Your task to perform on an android device: Go to internet settings Image 0: 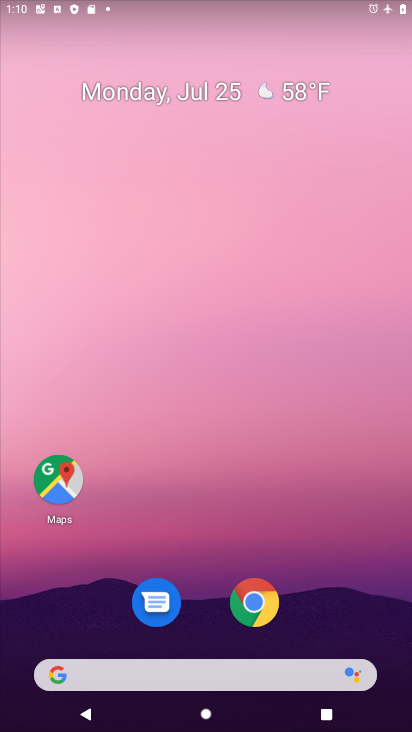
Step 0: drag from (196, 618) to (327, 33)
Your task to perform on an android device: Go to internet settings Image 1: 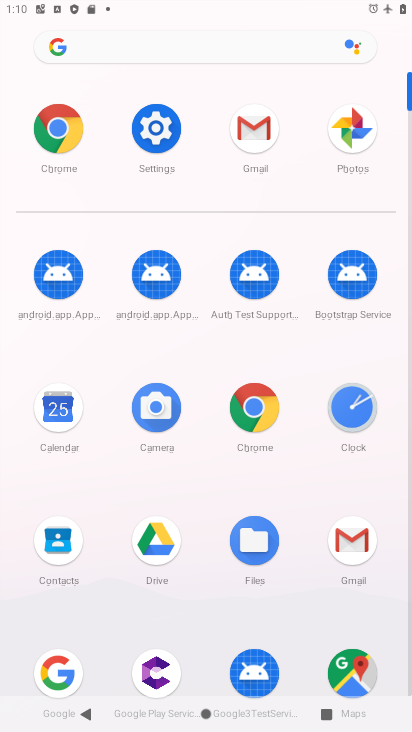
Step 1: click (167, 116)
Your task to perform on an android device: Go to internet settings Image 2: 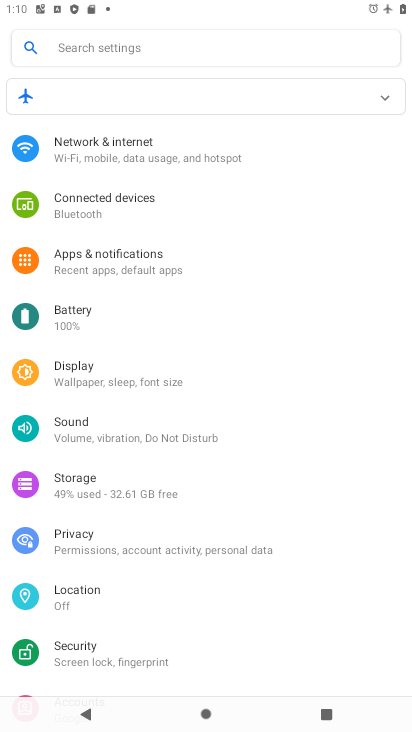
Step 2: click (158, 153)
Your task to perform on an android device: Go to internet settings Image 3: 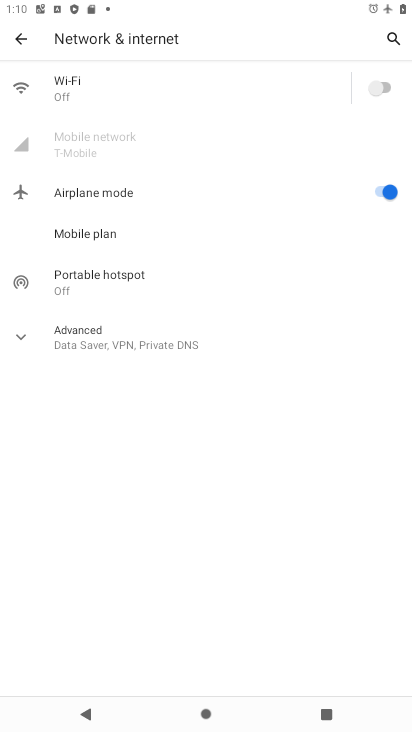
Step 3: task complete